Your task to perform on an android device: toggle notifications settings in the gmail app Image 0: 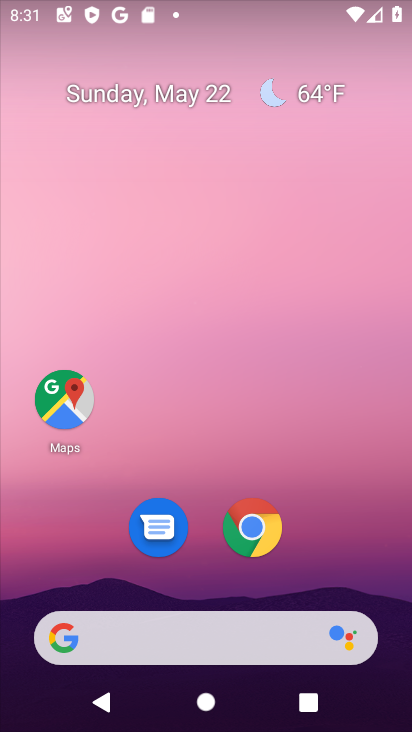
Step 0: press home button
Your task to perform on an android device: toggle notifications settings in the gmail app Image 1: 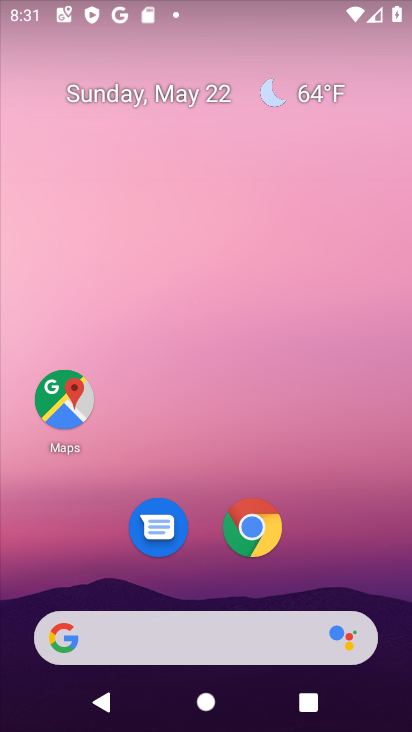
Step 1: drag from (205, 585) to (224, 50)
Your task to perform on an android device: toggle notifications settings in the gmail app Image 2: 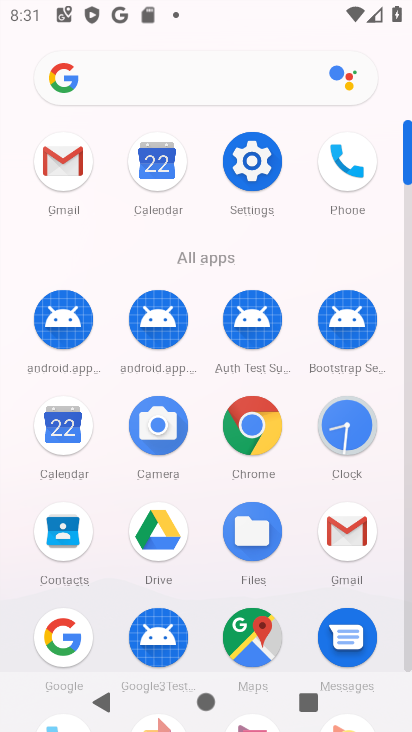
Step 2: click (58, 148)
Your task to perform on an android device: toggle notifications settings in the gmail app Image 3: 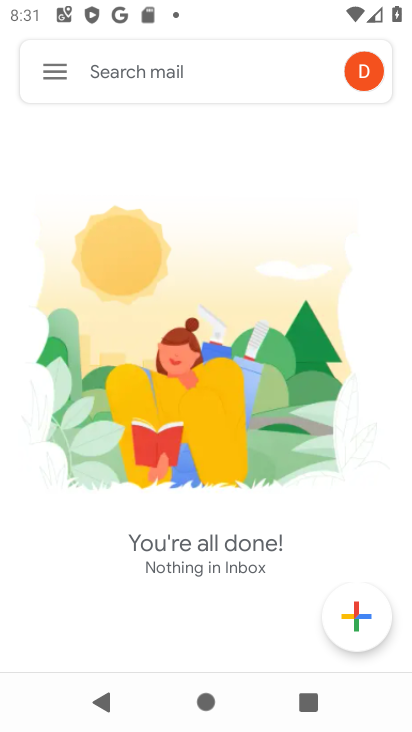
Step 3: click (55, 70)
Your task to perform on an android device: toggle notifications settings in the gmail app Image 4: 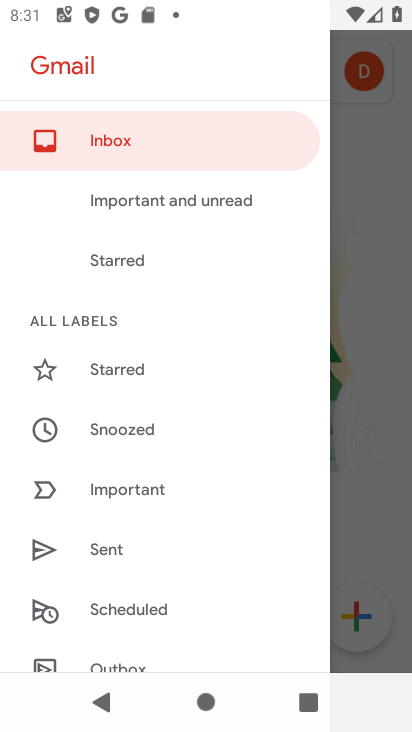
Step 4: drag from (132, 503) to (130, 233)
Your task to perform on an android device: toggle notifications settings in the gmail app Image 5: 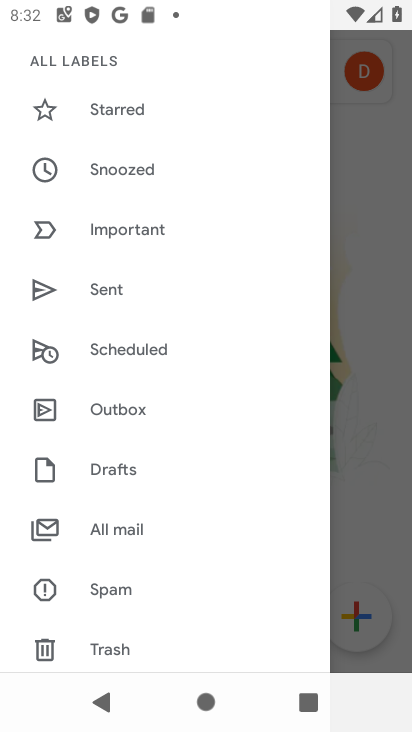
Step 5: drag from (148, 623) to (160, 94)
Your task to perform on an android device: toggle notifications settings in the gmail app Image 6: 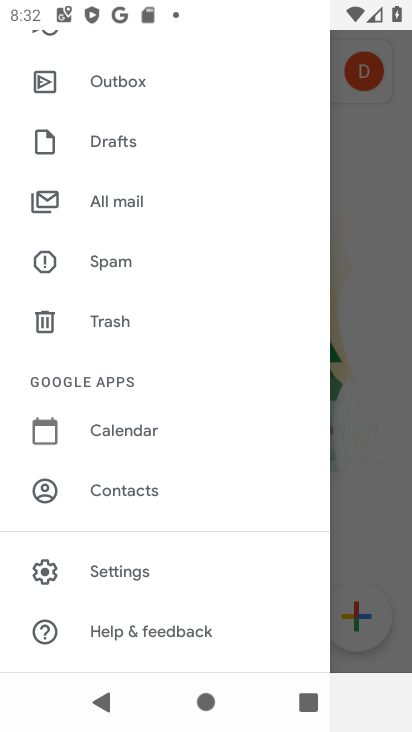
Step 6: click (160, 569)
Your task to perform on an android device: toggle notifications settings in the gmail app Image 7: 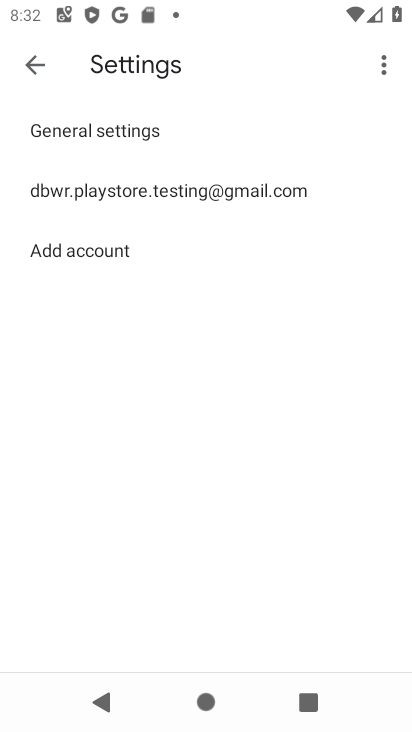
Step 7: click (174, 122)
Your task to perform on an android device: toggle notifications settings in the gmail app Image 8: 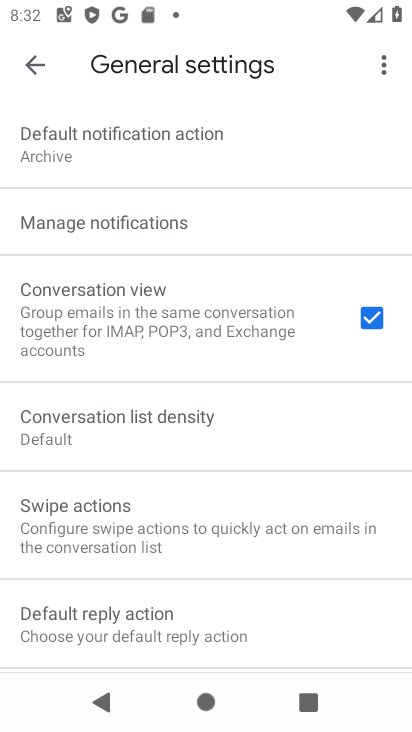
Step 8: click (156, 216)
Your task to perform on an android device: toggle notifications settings in the gmail app Image 9: 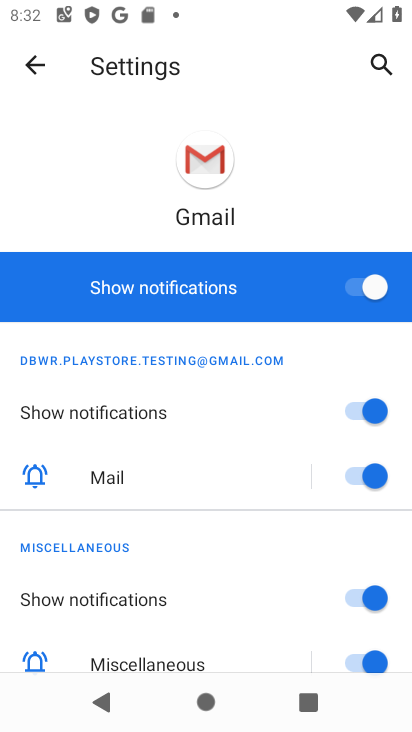
Step 9: click (350, 285)
Your task to perform on an android device: toggle notifications settings in the gmail app Image 10: 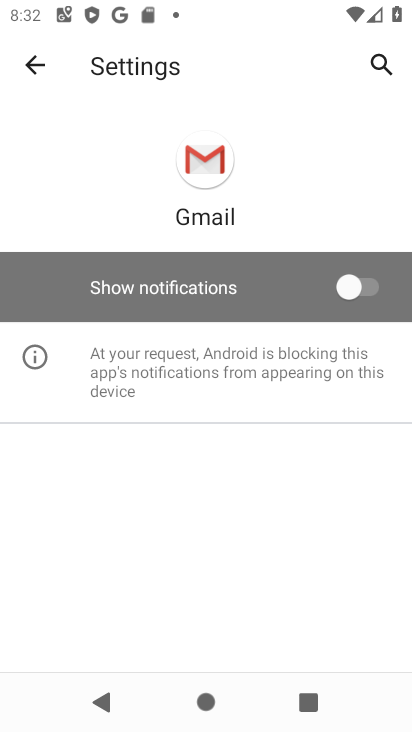
Step 10: task complete